Your task to perform on an android device: Open Wikipedia Image 0: 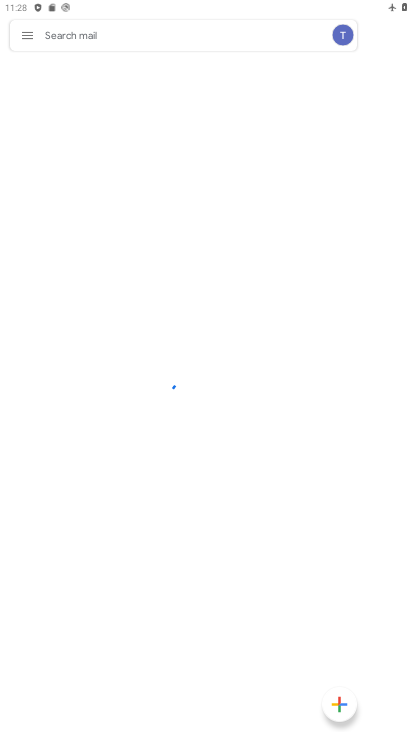
Step 0: press home button
Your task to perform on an android device: Open Wikipedia Image 1: 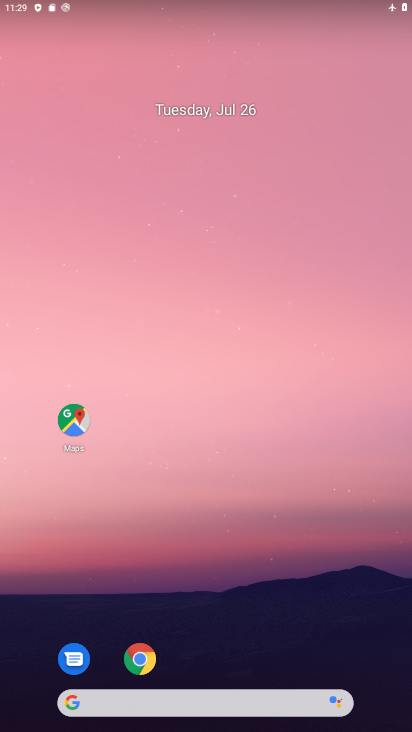
Step 1: click (148, 659)
Your task to perform on an android device: Open Wikipedia Image 2: 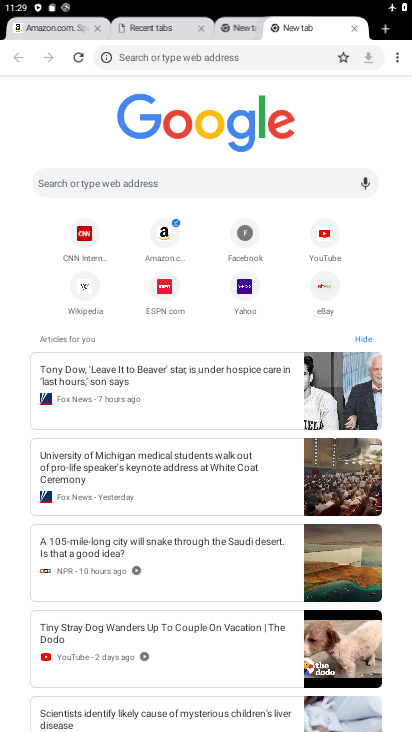
Step 2: click (355, 662)
Your task to perform on an android device: Open Wikipedia Image 3: 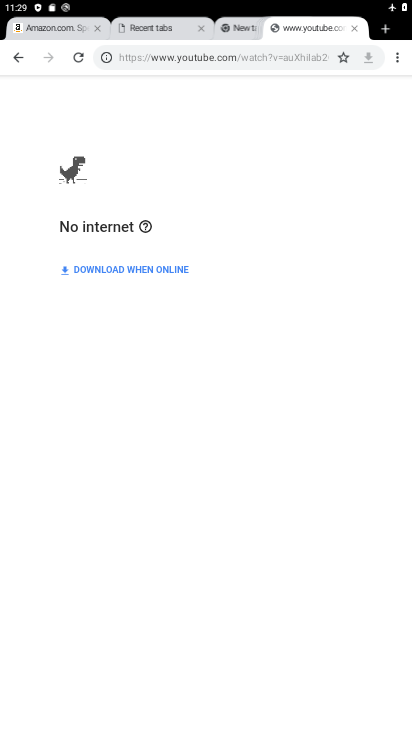
Step 3: drag from (326, 20) to (270, 433)
Your task to perform on an android device: Open Wikipedia Image 4: 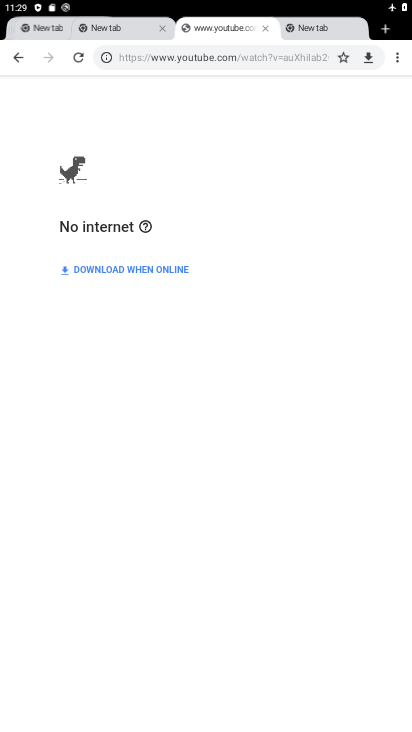
Step 4: drag from (345, 10) to (281, 428)
Your task to perform on an android device: Open Wikipedia Image 5: 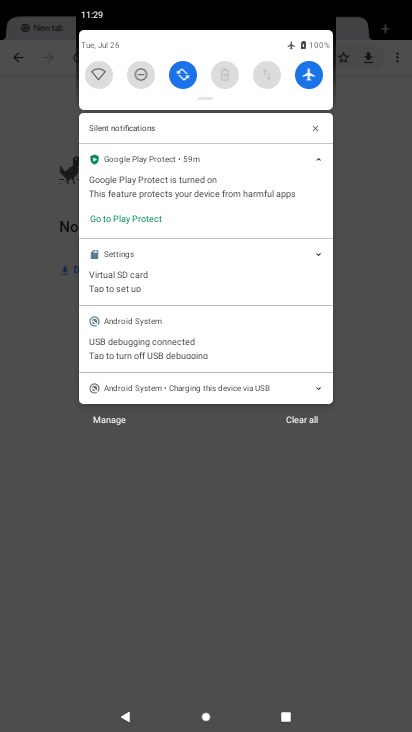
Step 5: click (316, 82)
Your task to perform on an android device: Open Wikipedia Image 6: 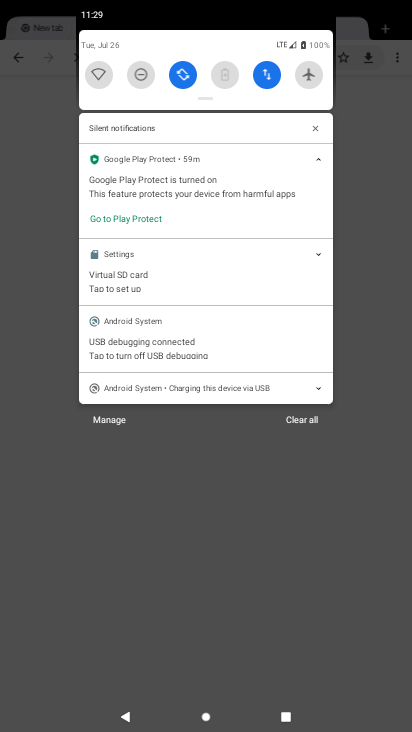
Step 6: task complete